Your task to perform on an android device: turn off notifications settings in the gmail app Image 0: 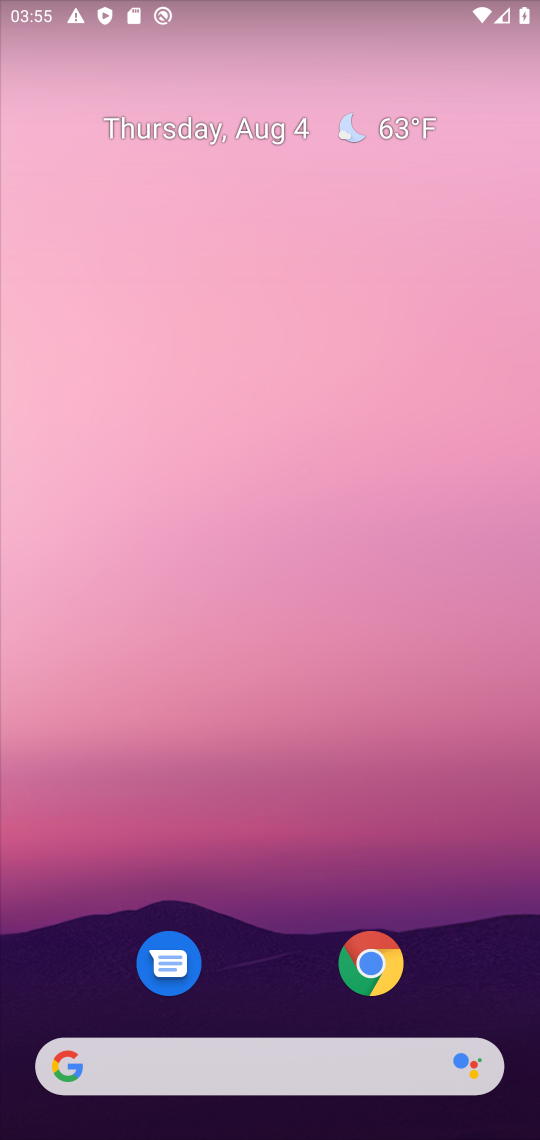
Step 0: drag from (275, 960) to (294, 25)
Your task to perform on an android device: turn off notifications settings in the gmail app Image 1: 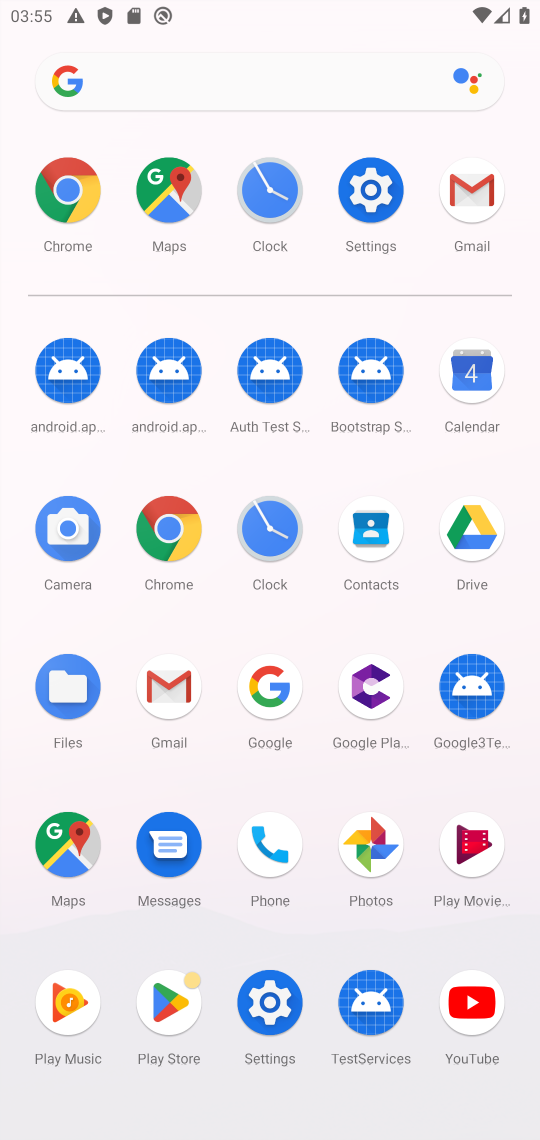
Step 1: click (477, 202)
Your task to perform on an android device: turn off notifications settings in the gmail app Image 2: 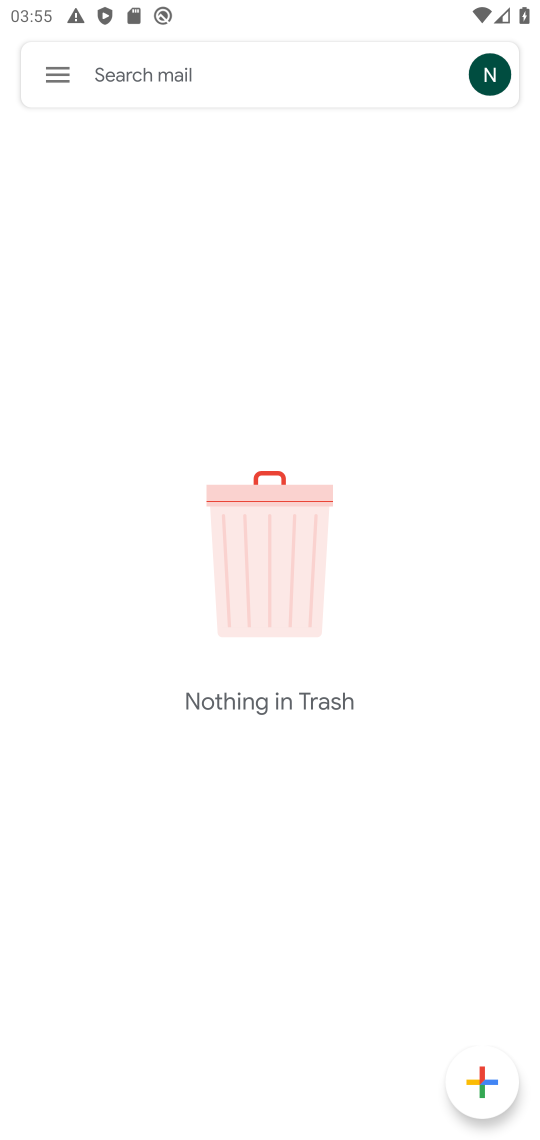
Step 2: click (57, 82)
Your task to perform on an android device: turn off notifications settings in the gmail app Image 3: 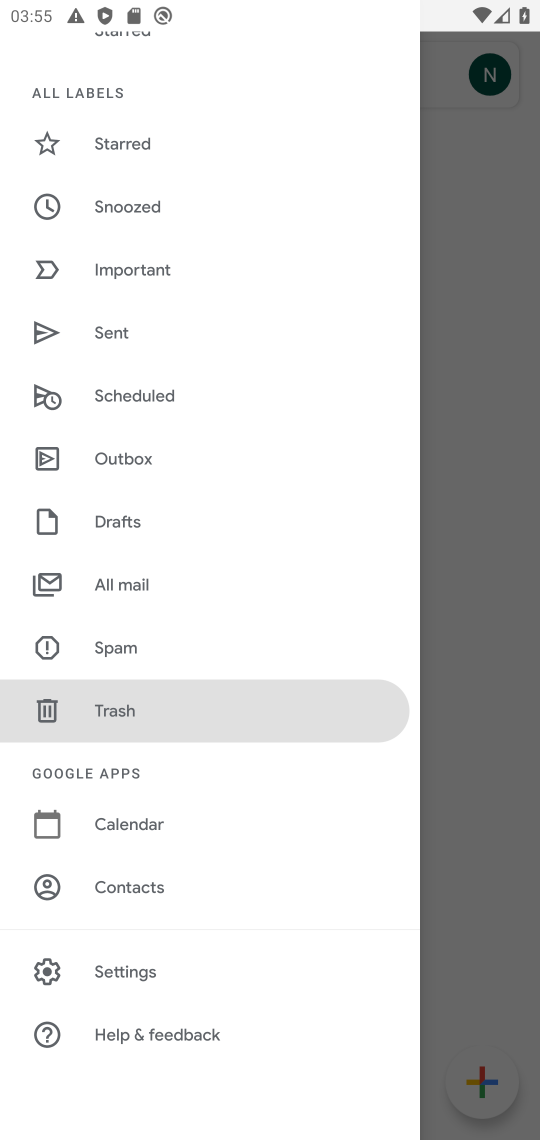
Step 3: click (98, 980)
Your task to perform on an android device: turn off notifications settings in the gmail app Image 4: 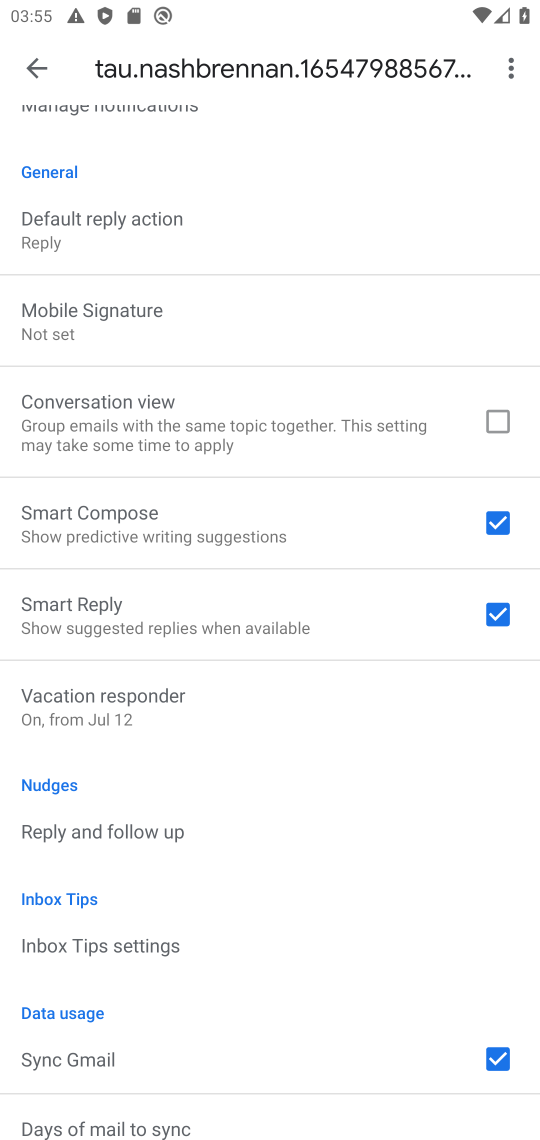
Step 4: click (49, 82)
Your task to perform on an android device: turn off notifications settings in the gmail app Image 5: 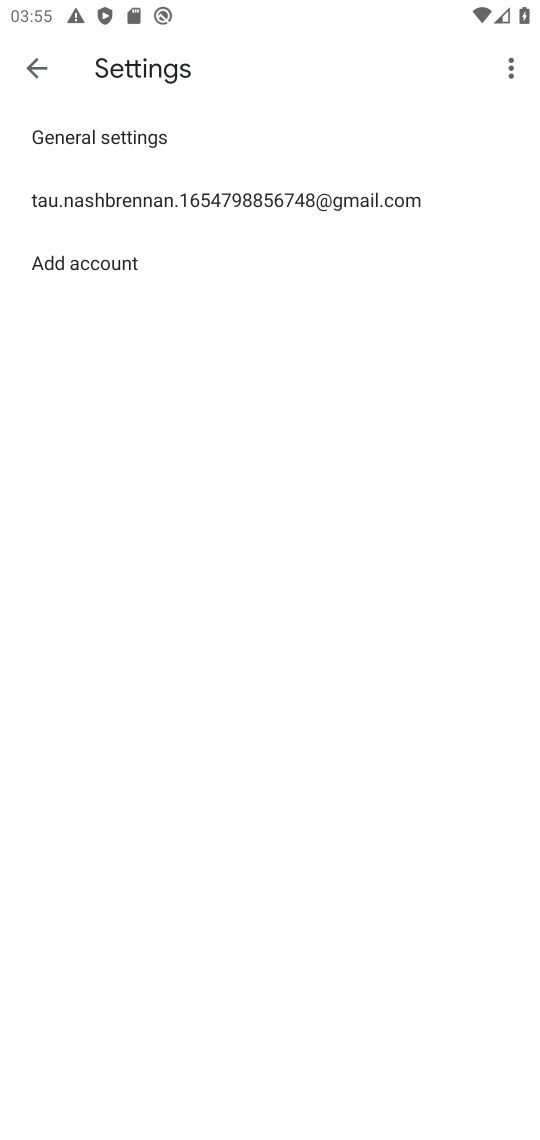
Step 5: click (97, 139)
Your task to perform on an android device: turn off notifications settings in the gmail app Image 6: 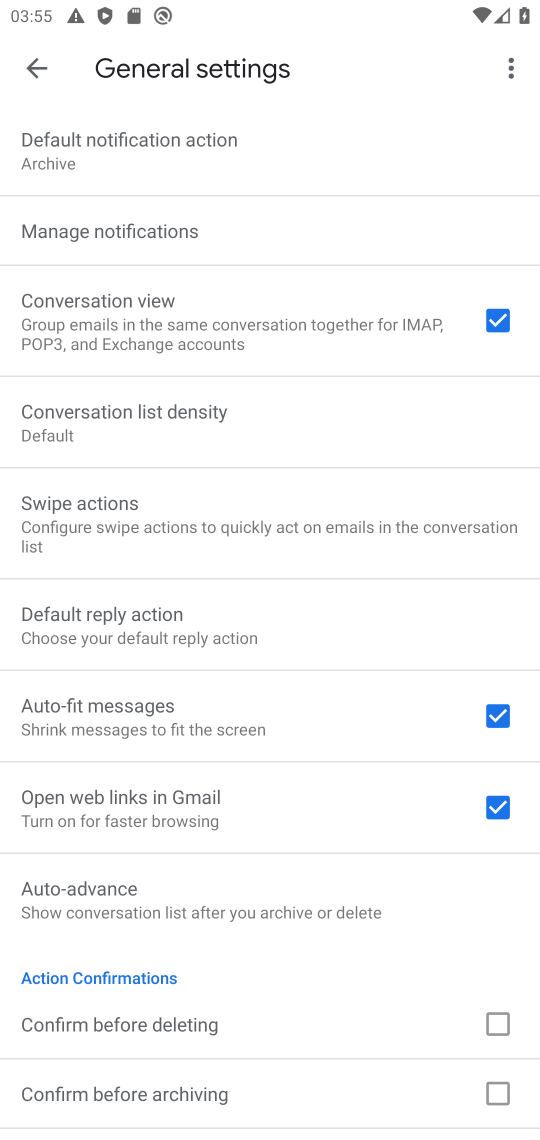
Step 6: click (116, 222)
Your task to perform on an android device: turn off notifications settings in the gmail app Image 7: 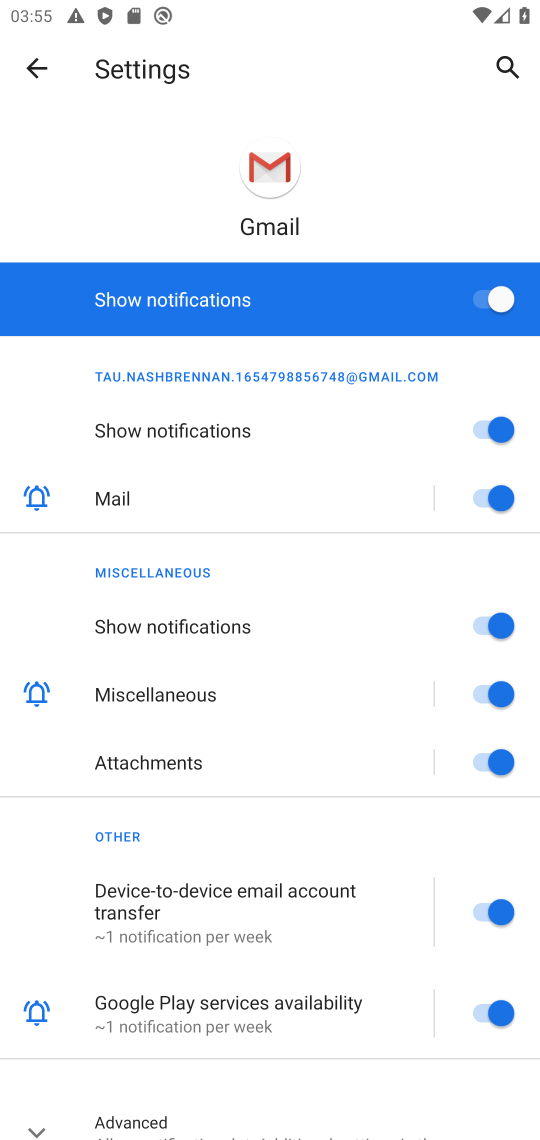
Step 7: click (507, 315)
Your task to perform on an android device: turn off notifications settings in the gmail app Image 8: 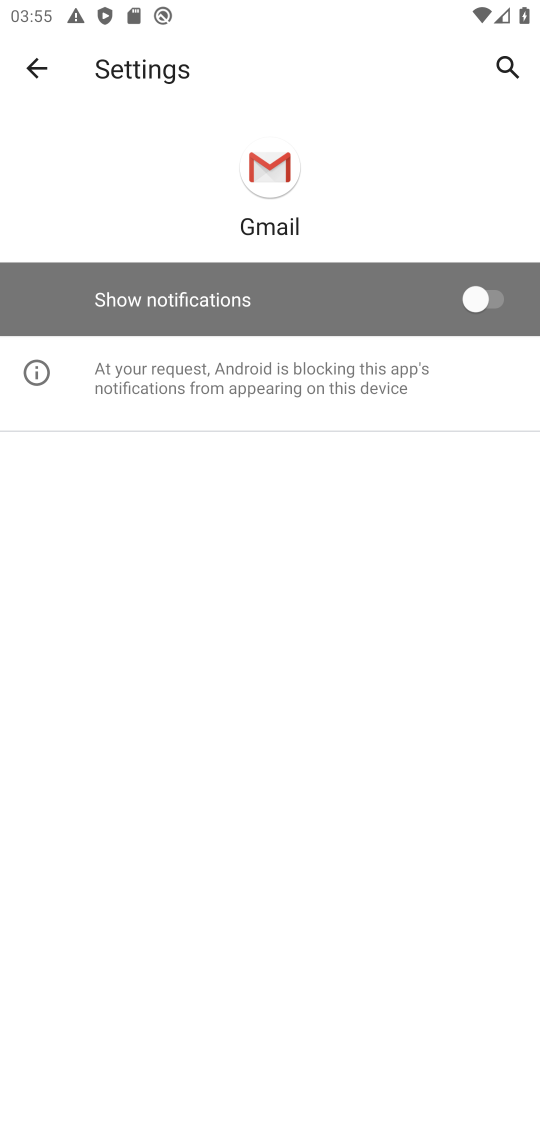
Step 8: task complete